Your task to perform on an android device: Open accessibility settings Image 0: 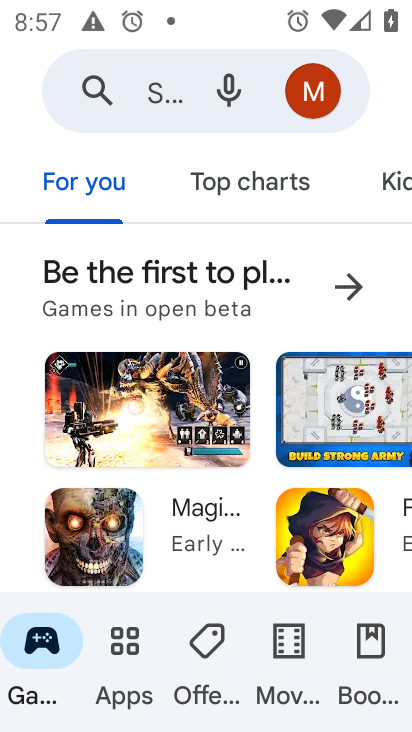
Step 0: press home button
Your task to perform on an android device: Open accessibility settings Image 1: 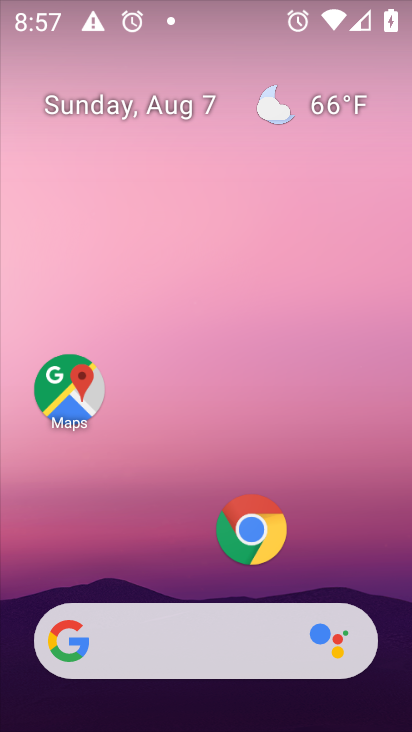
Step 1: drag from (157, 562) to (199, 2)
Your task to perform on an android device: Open accessibility settings Image 2: 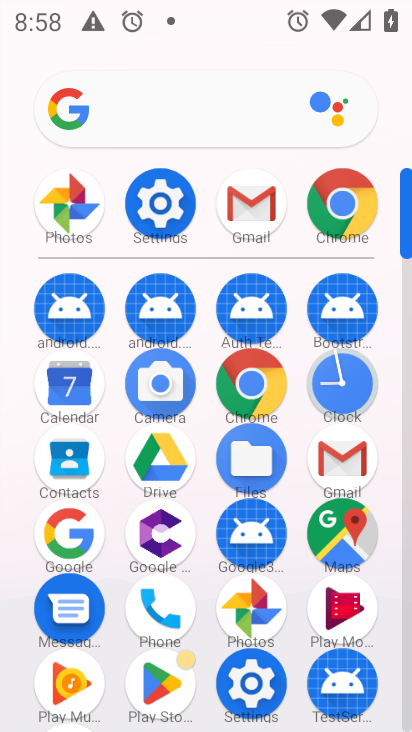
Step 2: click (255, 673)
Your task to perform on an android device: Open accessibility settings Image 3: 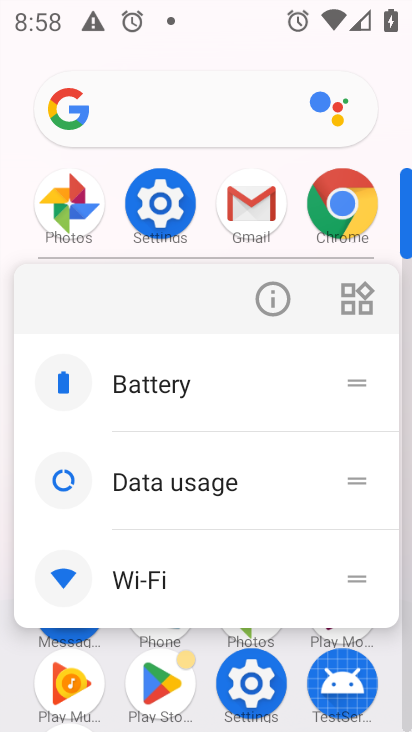
Step 3: click (264, 682)
Your task to perform on an android device: Open accessibility settings Image 4: 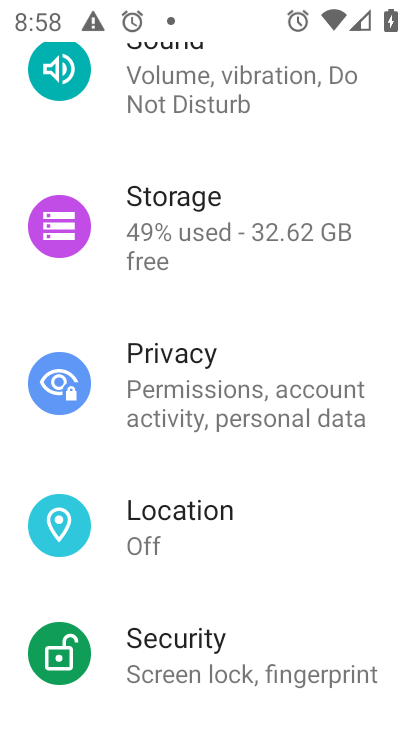
Step 4: drag from (220, 450) to (246, 279)
Your task to perform on an android device: Open accessibility settings Image 5: 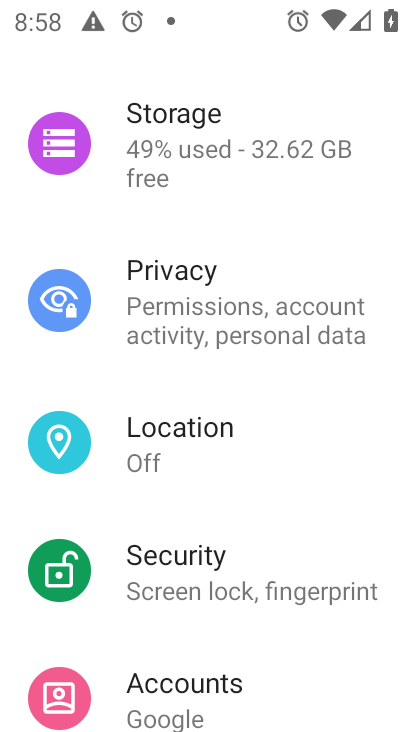
Step 5: drag from (232, 654) to (277, 213)
Your task to perform on an android device: Open accessibility settings Image 6: 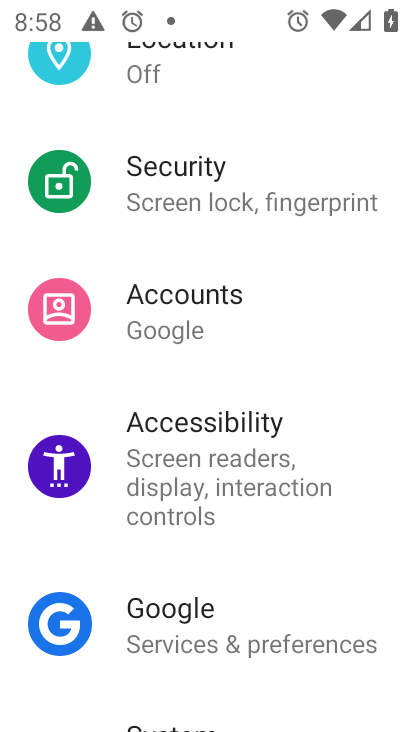
Step 6: click (222, 456)
Your task to perform on an android device: Open accessibility settings Image 7: 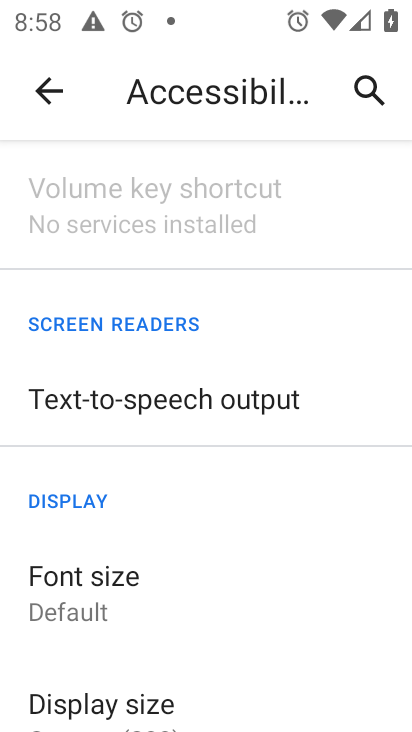
Step 7: task complete